Your task to perform on an android device: Go to Reddit.com Image 0: 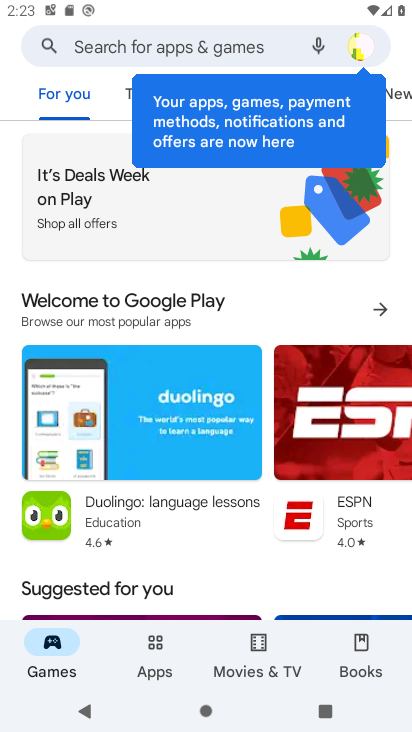
Step 0: press home button
Your task to perform on an android device: Go to Reddit.com Image 1: 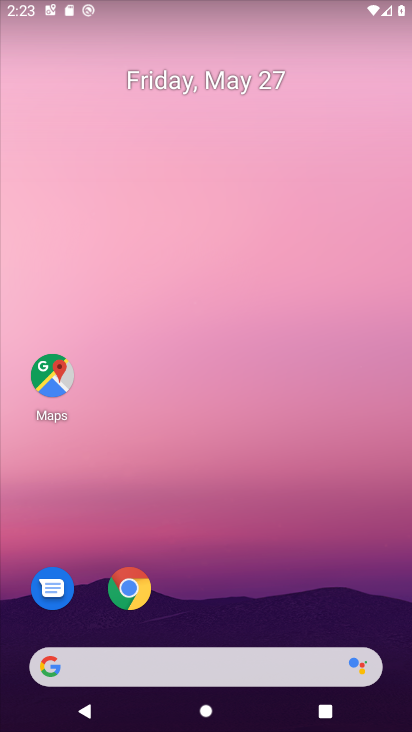
Step 1: click (133, 583)
Your task to perform on an android device: Go to Reddit.com Image 2: 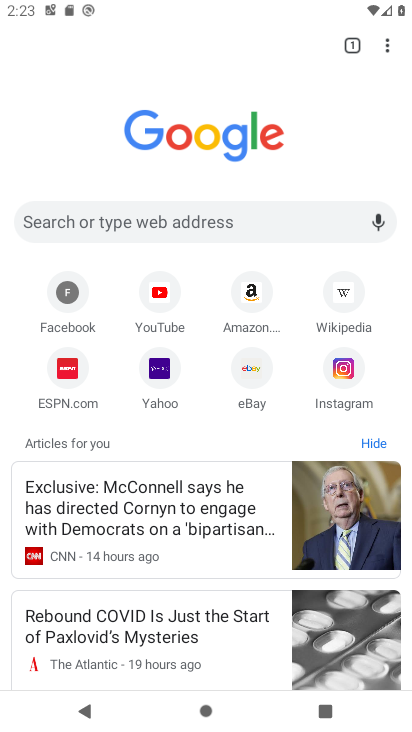
Step 2: click (142, 213)
Your task to perform on an android device: Go to Reddit.com Image 3: 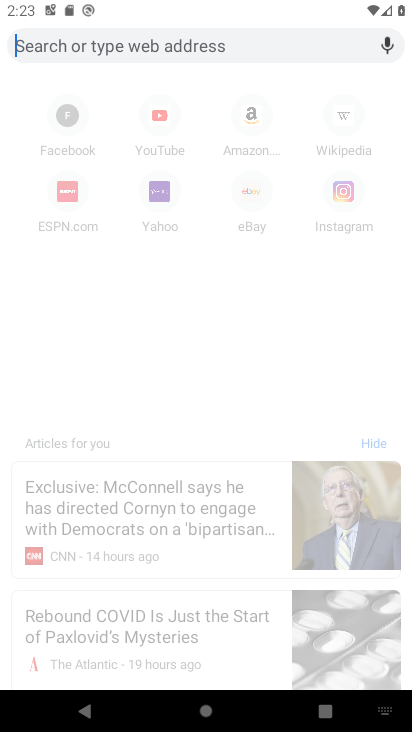
Step 3: type "reddit.com"
Your task to perform on an android device: Go to Reddit.com Image 4: 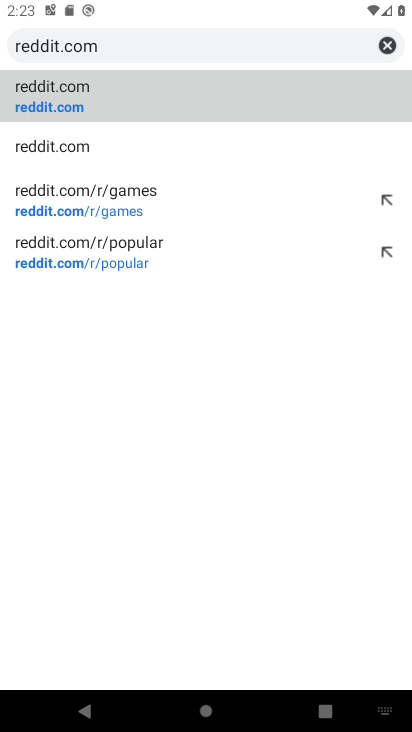
Step 4: click (67, 92)
Your task to perform on an android device: Go to Reddit.com Image 5: 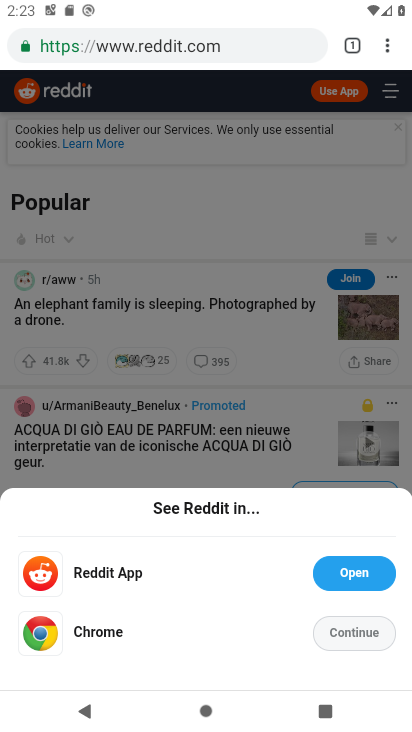
Step 5: task complete